Your task to perform on an android device: Open wifi settings Image 0: 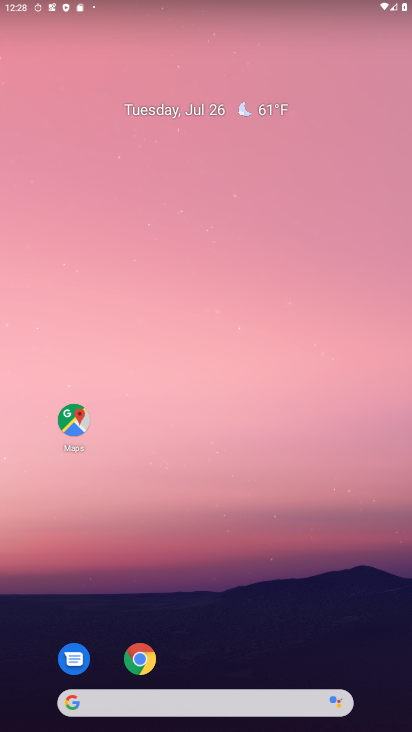
Step 0: drag from (38, 623) to (127, 185)
Your task to perform on an android device: Open wifi settings Image 1: 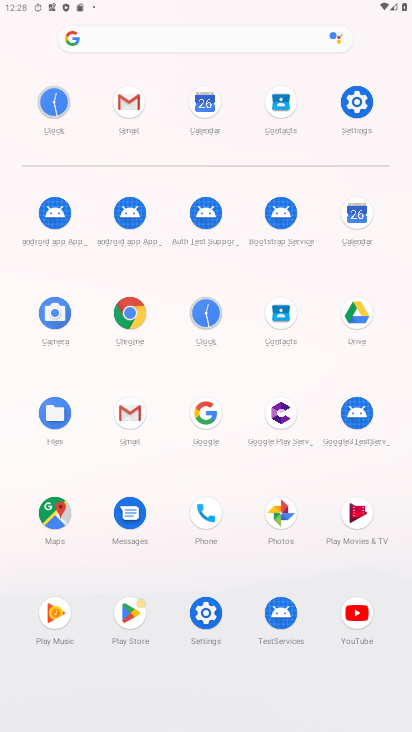
Step 1: click (190, 622)
Your task to perform on an android device: Open wifi settings Image 2: 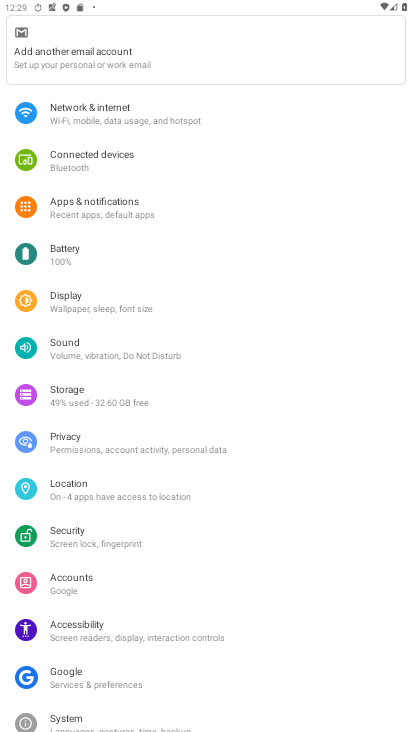
Step 2: click (79, 113)
Your task to perform on an android device: Open wifi settings Image 3: 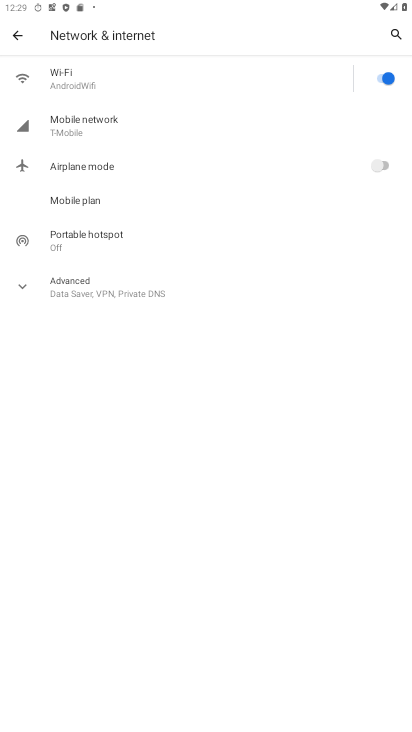
Step 3: task complete